Your task to perform on an android device: Show me popular videos on Youtube Image 0: 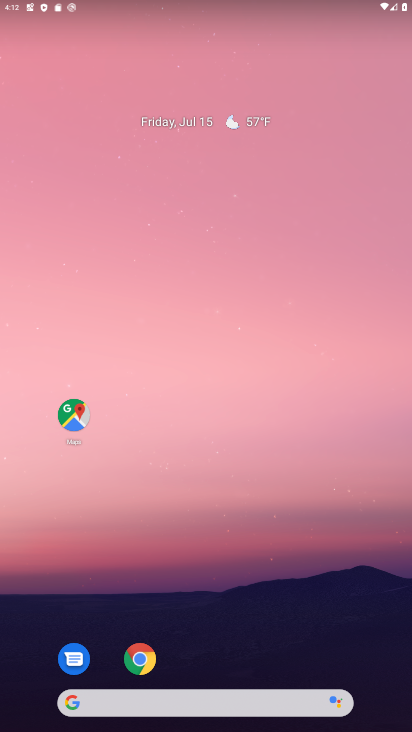
Step 0: drag from (188, 615) to (172, 114)
Your task to perform on an android device: Show me popular videos on Youtube Image 1: 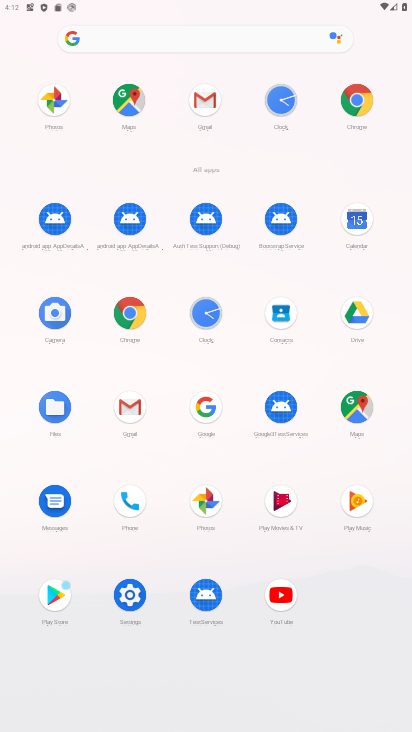
Step 1: click (291, 598)
Your task to perform on an android device: Show me popular videos on Youtube Image 2: 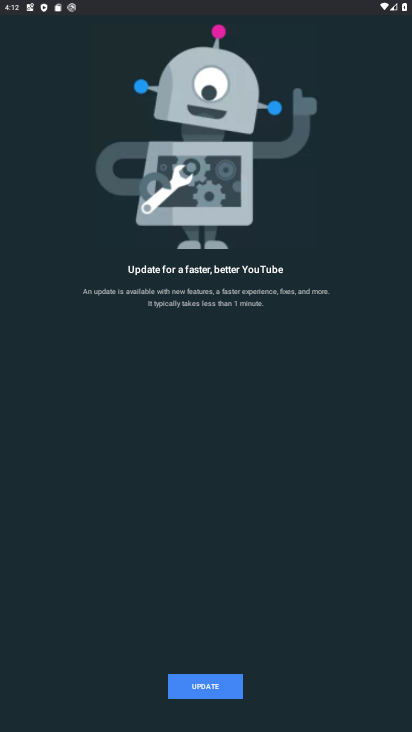
Step 2: click (213, 679)
Your task to perform on an android device: Show me popular videos on Youtube Image 3: 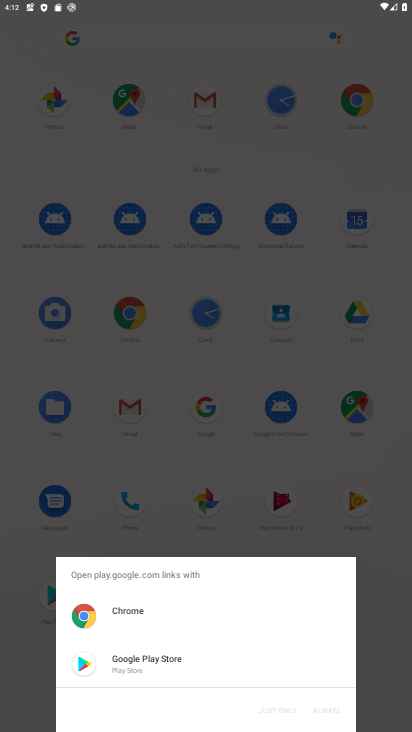
Step 3: click (226, 675)
Your task to perform on an android device: Show me popular videos on Youtube Image 4: 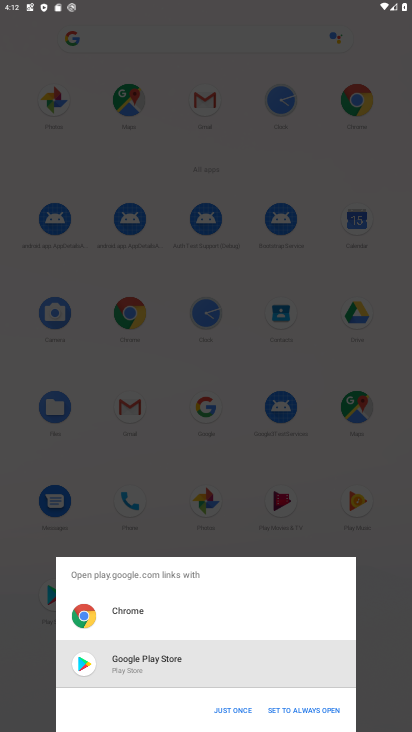
Step 4: click (233, 717)
Your task to perform on an android device: Show me popular videos on Youtube Image 5: 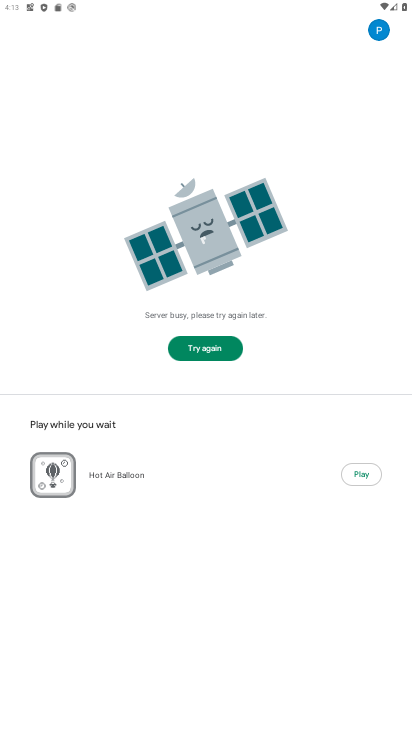
Step 5: task complete